Your task to perform on an android device: Search for Mexican restaurants on Maps Image 0: 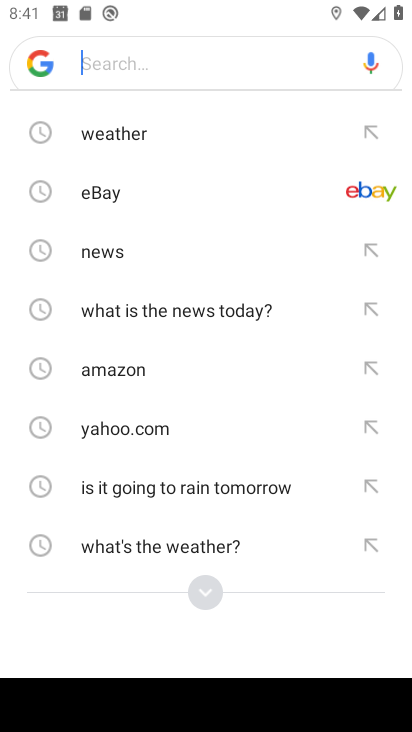
Step 0: press home button
Your task to perform on an android device: Search for Mexican restaurants on Maps Image 1: 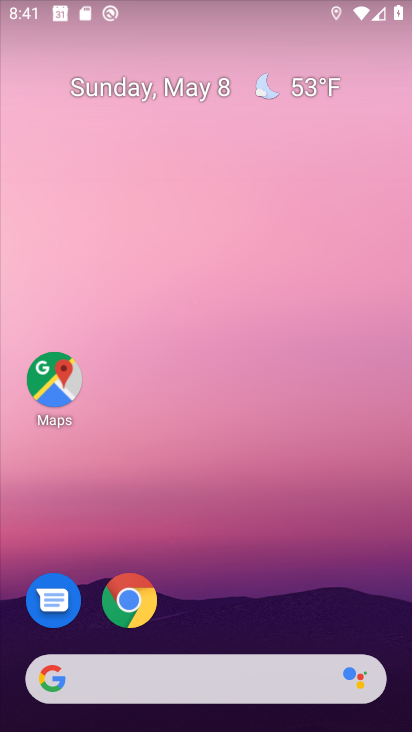
Step 1: drag from (266, 638) to (226, 118)
Your task to perform on an android device: Search for Mexican restaurants on Maps Image 2: 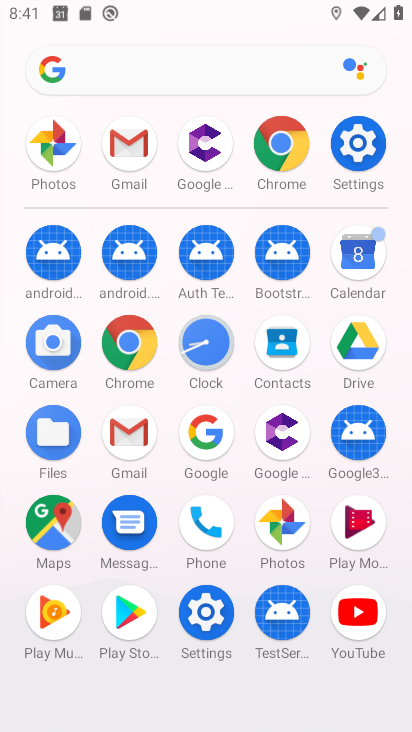
Step 2: click (54, 521)
Your task to perform on an android device: Search for Mexican restaurants on Maps Image 3: 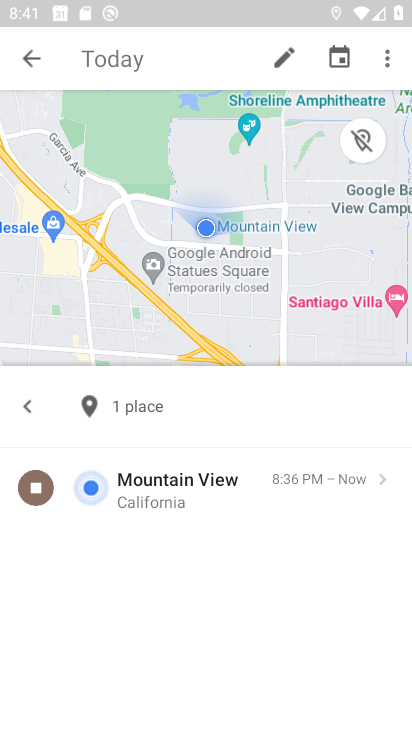
Step 3: click (39, 61)
Your task to perform on an android device: Search for Mexican restaurants on Maps Image 4: 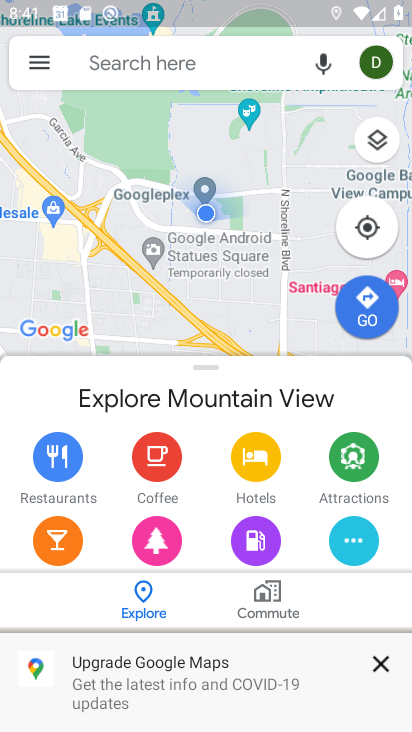
Step 4: click (218, 70)
Your task to perform on an android device: Search for Mexican restaurants on Maps Image 5: 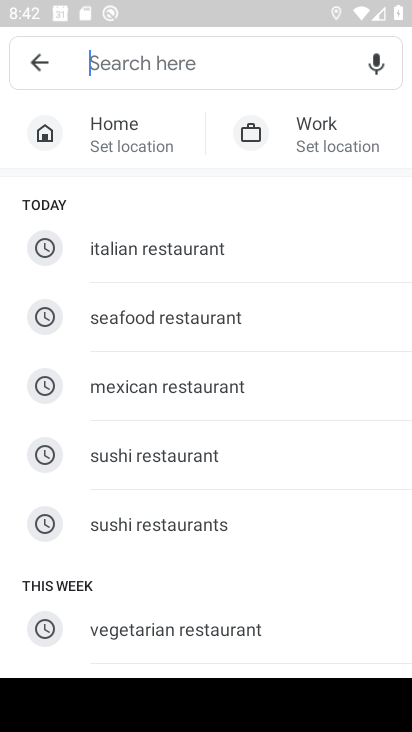
Step 5: click (176, 408)
Your task to perform on an android device: Search for Mexican restaurants on Maps Image 6: 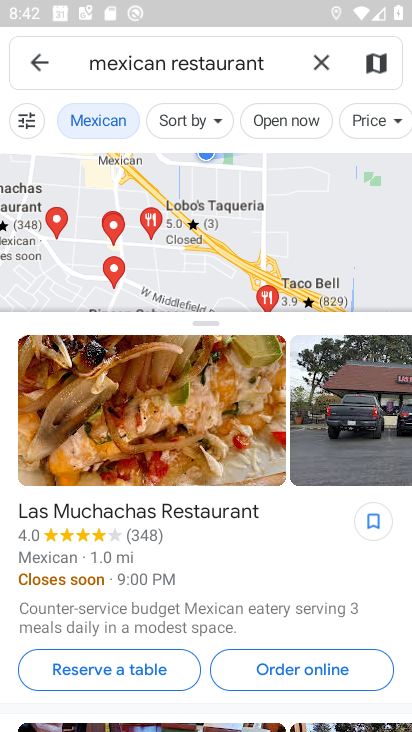
Step 6: task complete